Your task to perform on an android device: Open the calendar app, open the side menu, and click the "Day" option Image 0: 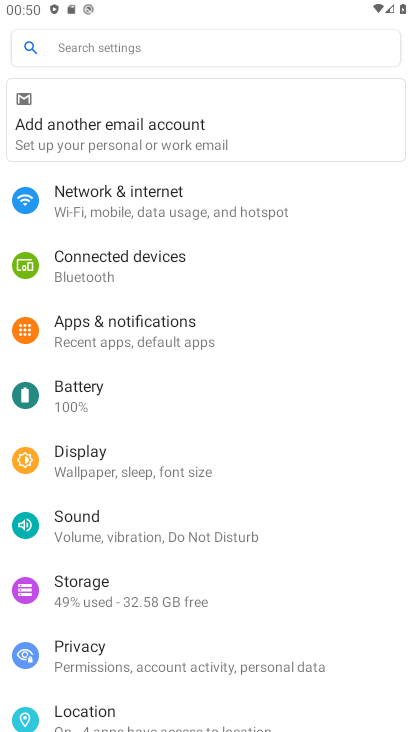
Step 0: press home button
Your task to perform on an android device: Open the calendar app, open the side menu, and click the "Day" option Image 1: 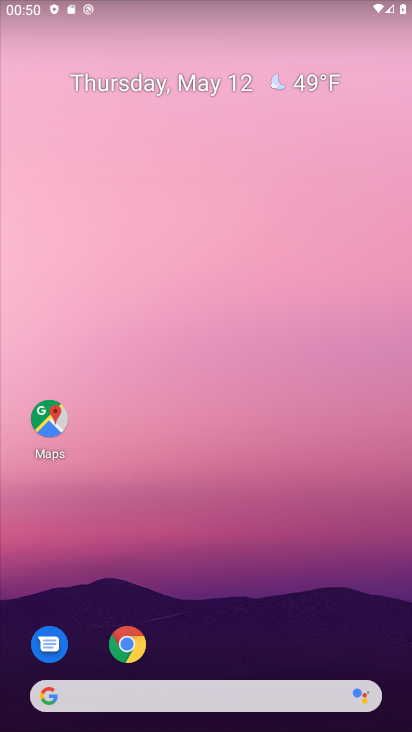
Step 1: drag from (255, 579) to (113, 54)
Your task to perform on an android device: Open the calendar app, open the side menu, and click the "Day" option Image 2: 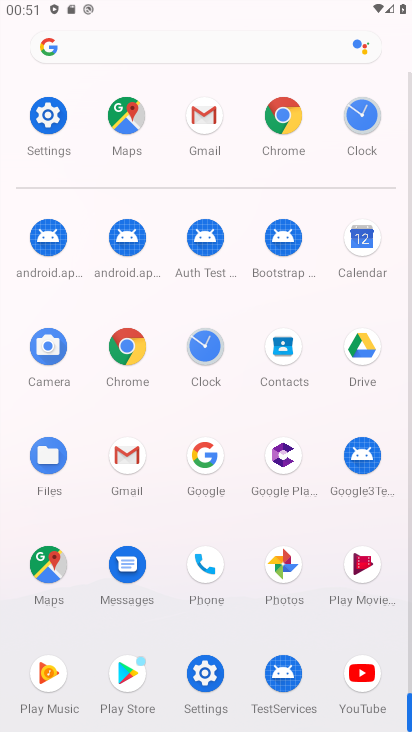
Step 2: click (360, 247)
Your task to perform on an android device: Open the calendar app, open the side menu, and click the "Day" option Image 3: 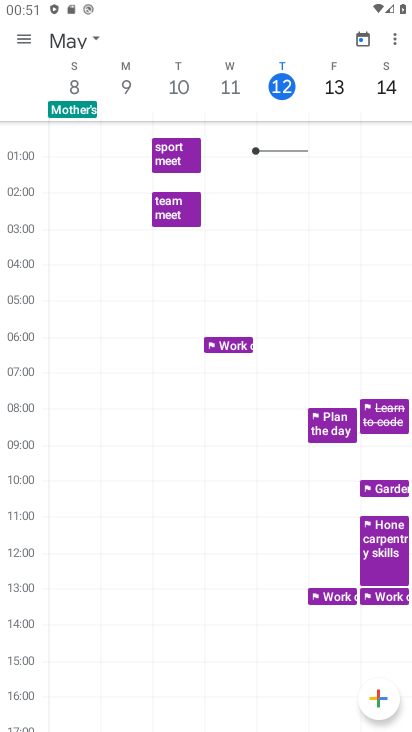
Step 3: click (27, 39)
Your task to perform on an android device: Open the calendar app, open the side menu, and click the "Day" option Image 4: 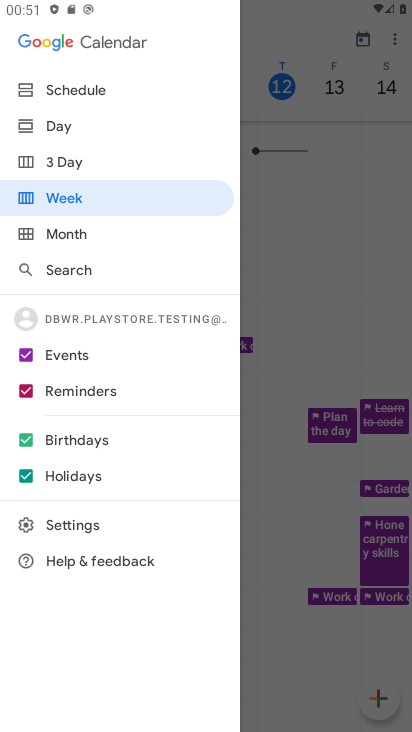
Step 4: click (63, 124)
Your task to perform on an android device: Open the calendar app, open the side menu, and click the "Day" option Image 5: 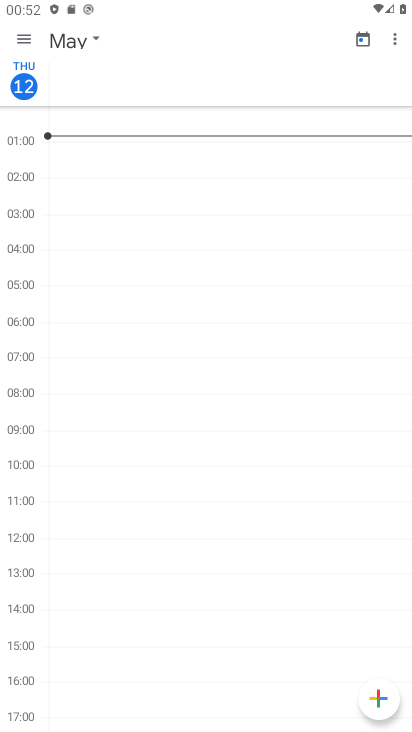
Step 5: task complete